Your task to perform on an android device: turn on bluetooth scan Image 0: 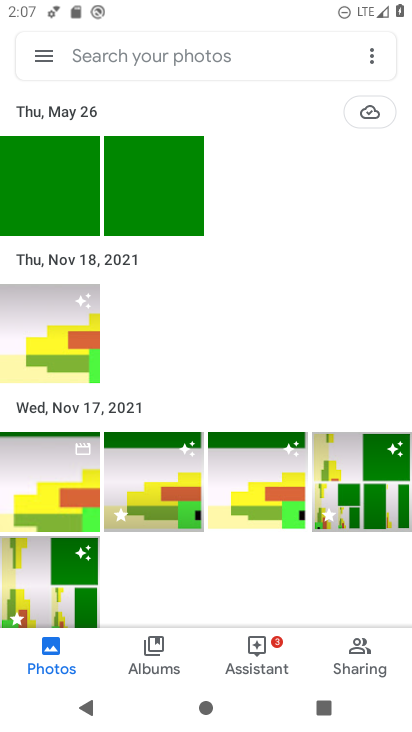
Step 0: press home button
Your task to perform on an android device: turn on bluetooth scan Image 1: 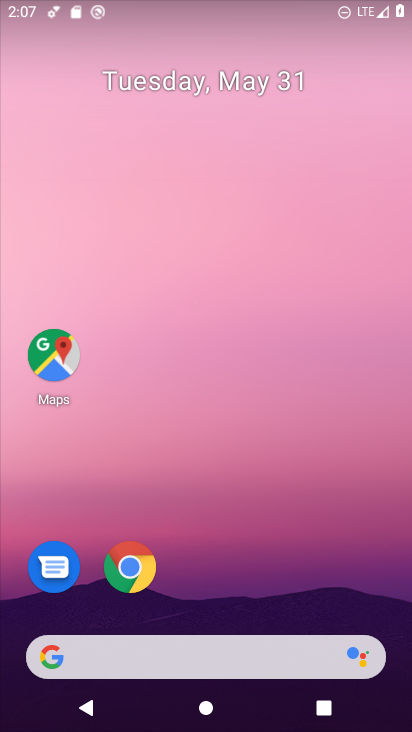
Step 1: drag from (247, 577) to (249, 192)
Your task to perform on an android device: turn on bluetooth scan Image 2: 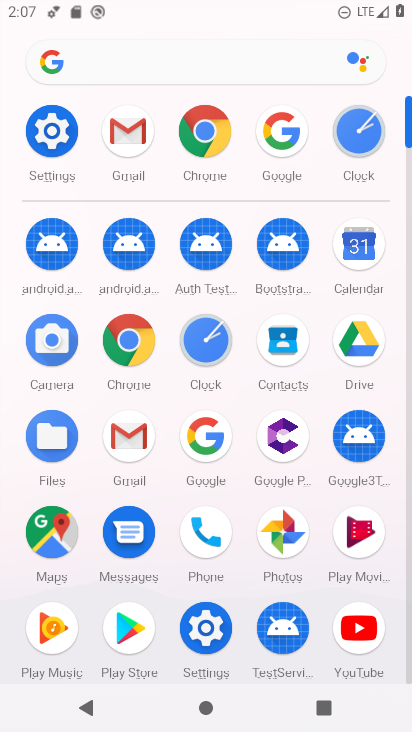
Step 2: click (67, 139)
Your task to perform on an android device: turn on bluetooth scan Image 3: 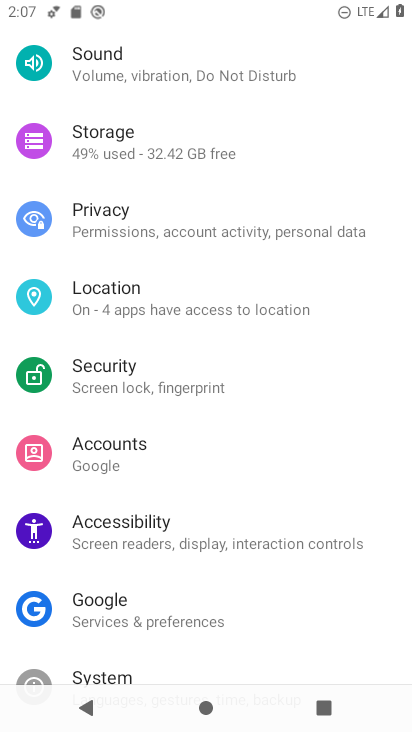
Step 3: click (158, 306)
Your task to perform on an android device: turn on bluetooth scan Image 4: 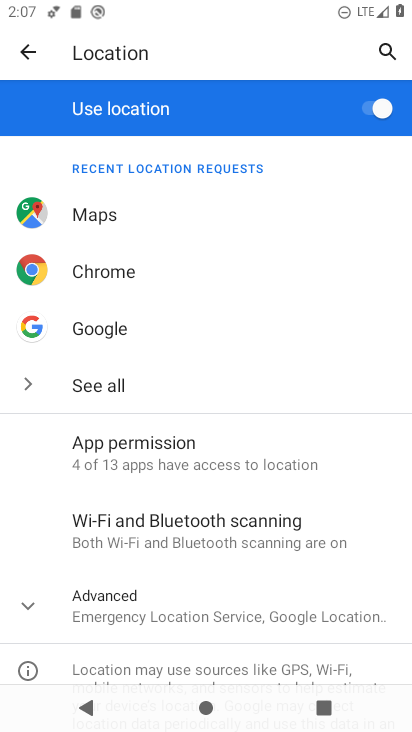
Step 4: click (165, 518)
Your task to perform on an android device: turn on bluetooth scan Image 5: 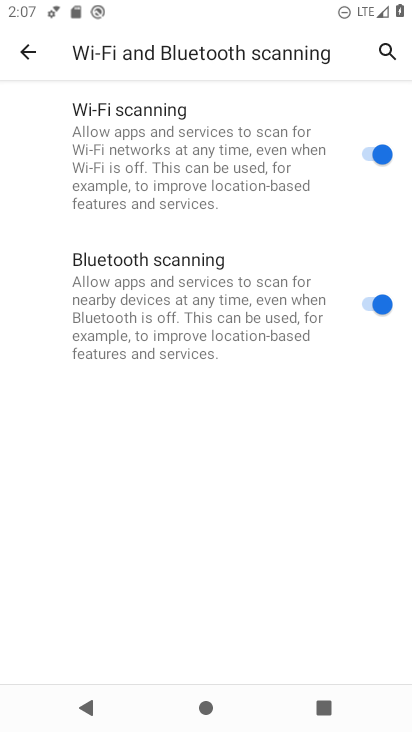
Step 5: task complete